Your task to perform on an android device: check data usage Image 0: 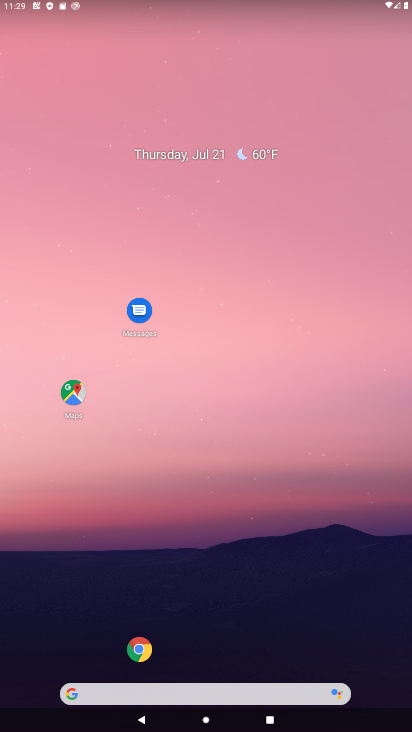
Step 0: drag from (32, 684) to (237, 16)
Your task to perform on an android device: check data usage Image 1: 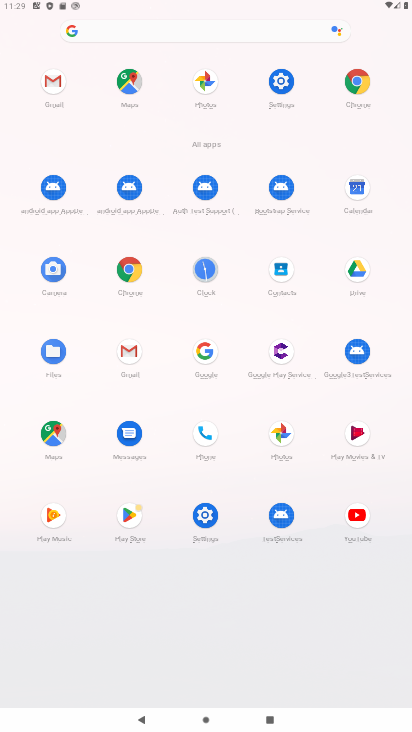
Step 1: click (217, 508)
Your task to perform on an android device: check data usage Image 2: 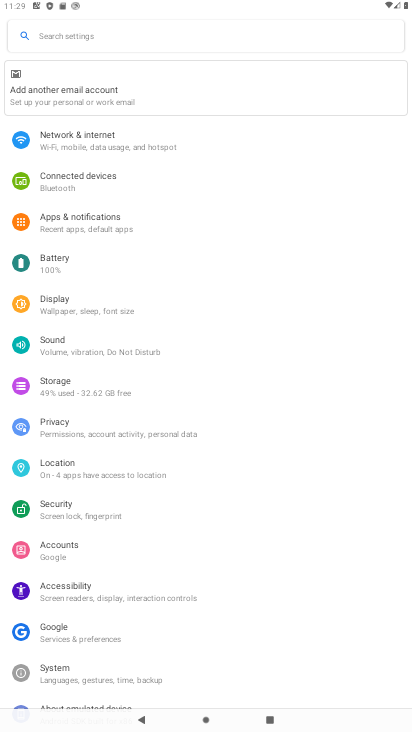
Step 2: click (72, 139)
Your task to perform on an android device: check data usage Image 3: 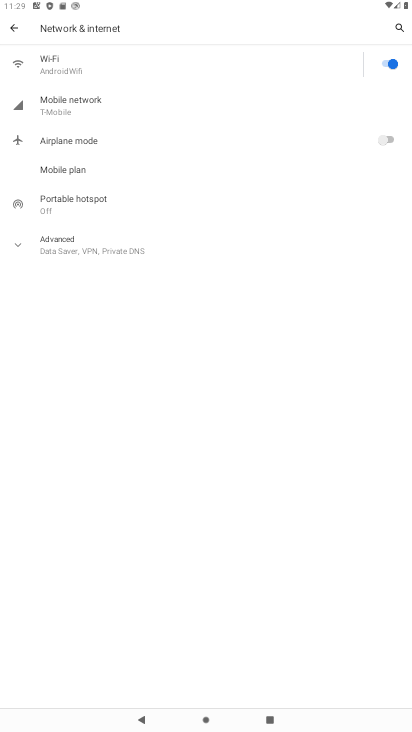
Step 3: click (46, 112)
Your task to perform on an android device: check data usage Image 4: 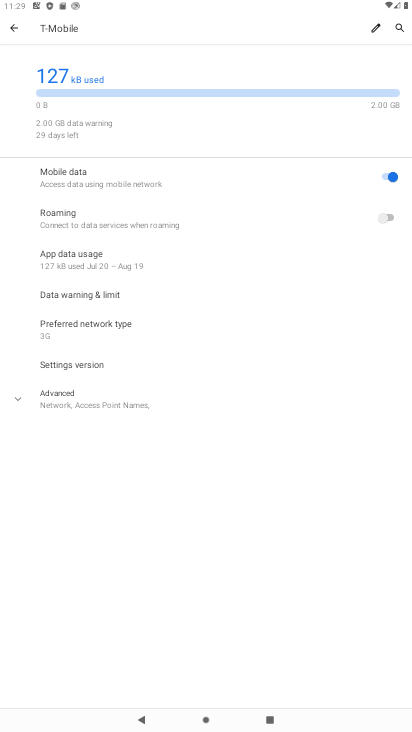
Step 4: task complete